Your task to perform on an android device: delete browsing data in the chrome app Image 0: 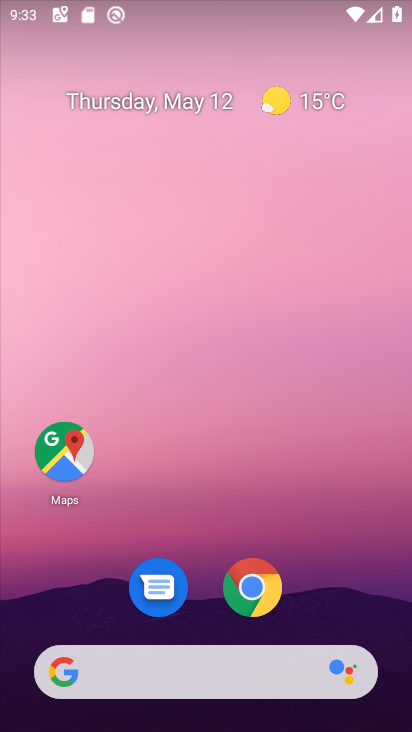
Step 0: drag from (373, 606) to (253, 56)
Your task to perform on an android device: delete browsing data in the chrome app Image 1: 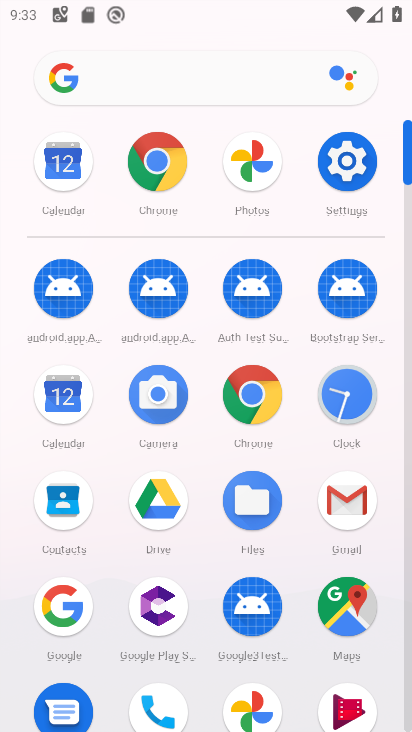
Step 1: click (242, 401)
Your task to perform on an android device: delete browsing data in the chrome app Image 2: 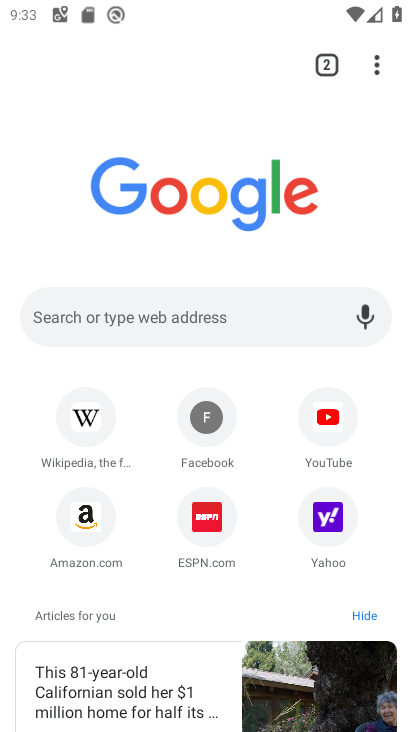
Step 2: click (380, 59)
Your task to perform on an android device: delete browsing data in the chrome app Image 3: 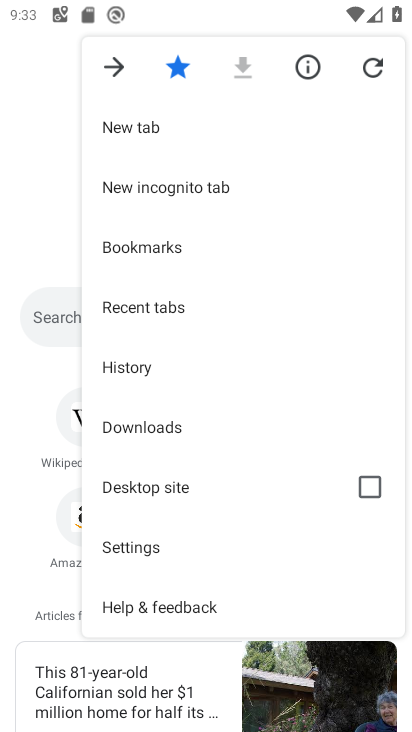
Step 3: click (175, 362)
Your task to perform on an android device: delete browsing data in the chrome app Image 4: 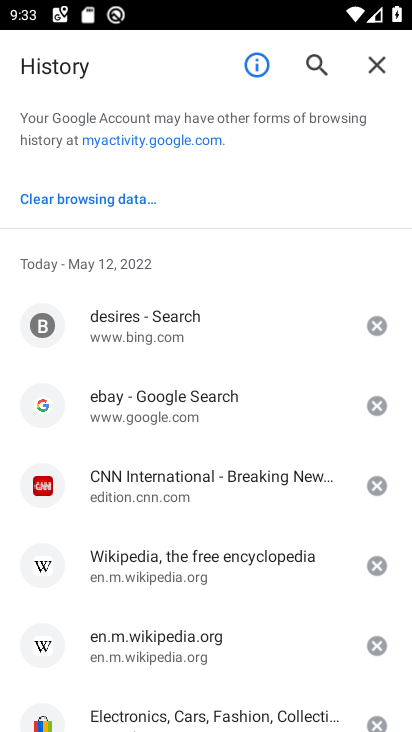
Step 4: click (91, 194)
Your task to perform on an android device: delete browsing data in the chrome app Image 5: 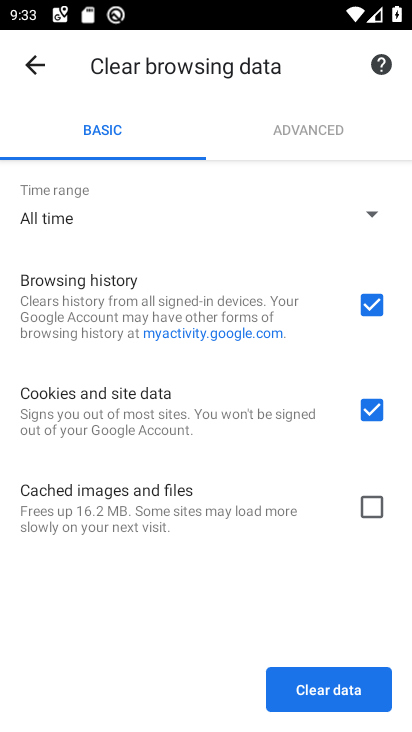
Step 5: click (323, 693)
Your task to perform on an android device: delete browsing data in the chrome app Image 6: 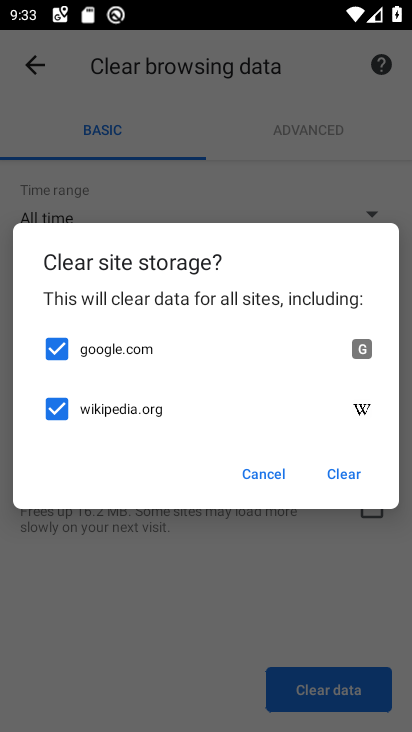
Step 6: click (342, 474)
Your task to perform on an android device: delete browsing data in the chrome app Image 7: 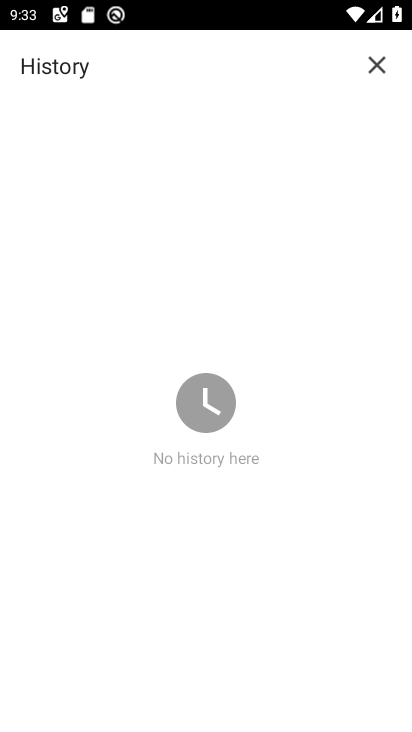
Step 7: task complete